Your task to perform on an android device: What's on my calendar tomorrow? Image 0: 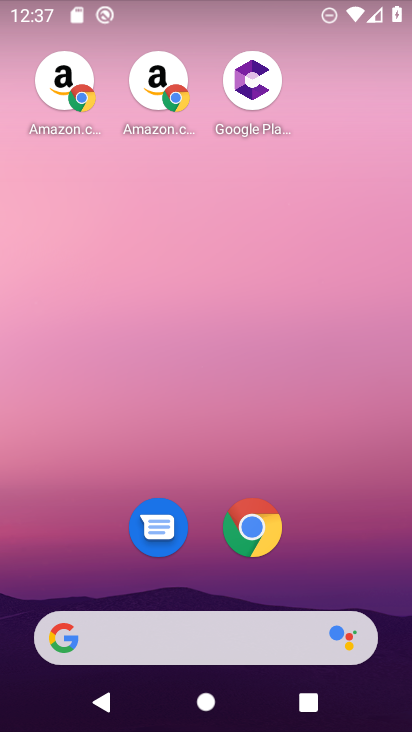
Step 0: drag from (27, 319) to (177, 43)
Your task to perform on an android device: What's on my calendar tomorrow? Image 1: 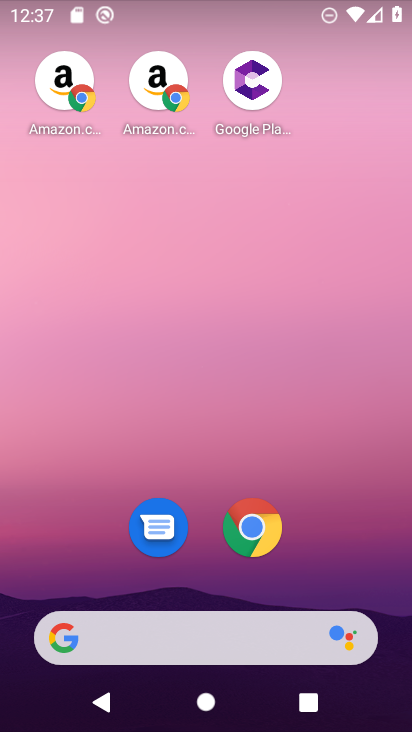
Step 1: drag from (165, 313) to (393, 353)
Your task to perform on an android device: What's on my calendar tomorrow? Image 2: 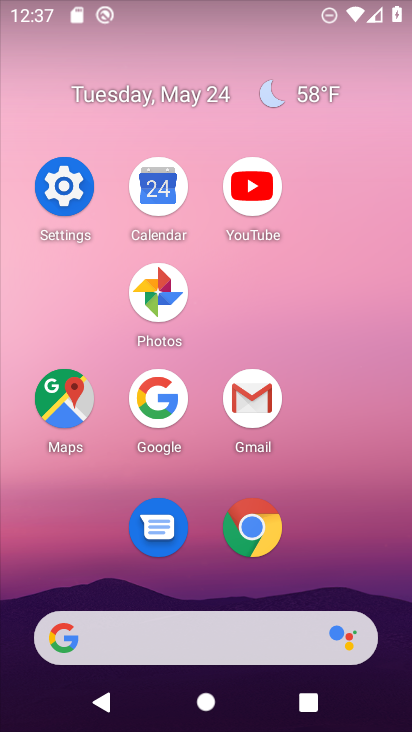
Step 2: click (164, 186)
Your task to perform on an android device: What's on my calendar tomorrow? Image 3: 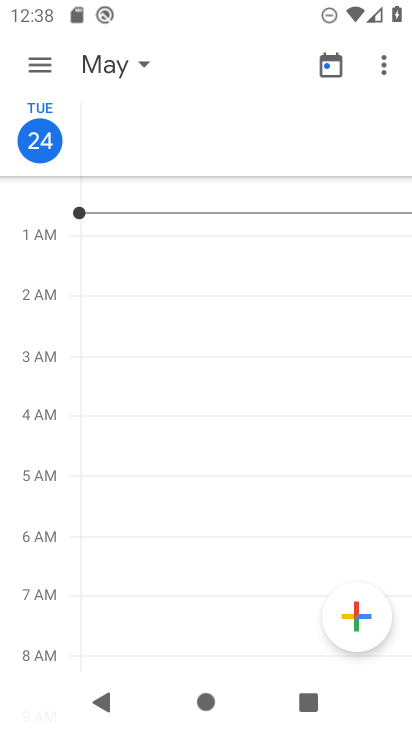
Step 3: task complete